Your task to perform on an android device: create a new album in the google photos Image 0: 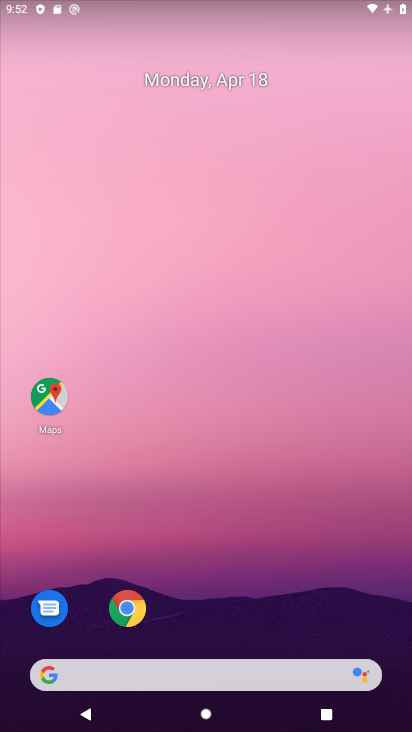
Step 0: drag from (230, 555) to (277, 147)
Your task to perform on an android device: create a new album in the google photos Image 1: 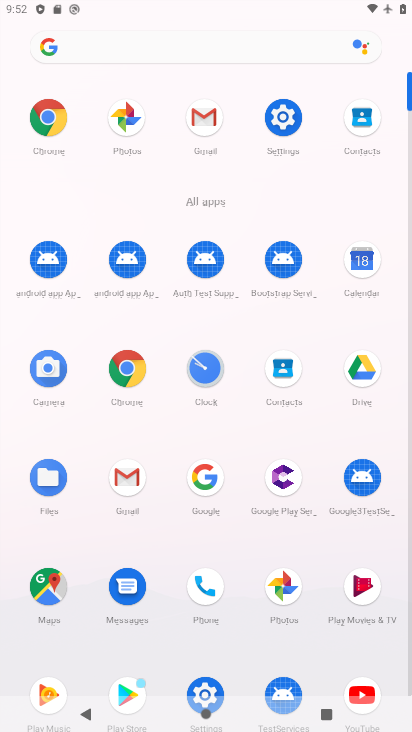
Step 1: click (142, 112)
Your task to perform on an android device: create a new album in the google photos Image 2: 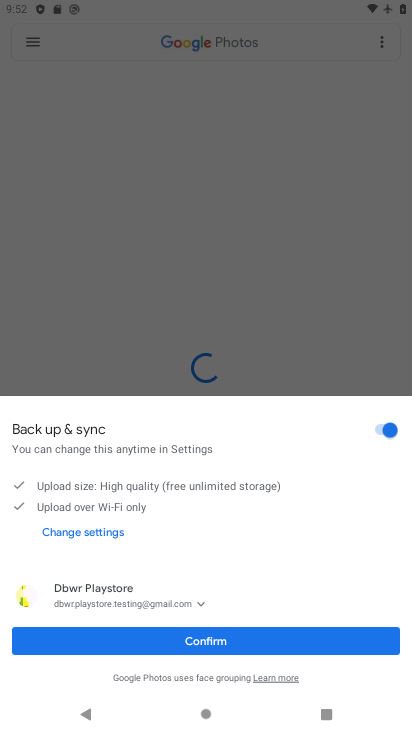
Step 2: click (267, 640)
Your task to perform on an android device: create a new album in the google photos Image 3: 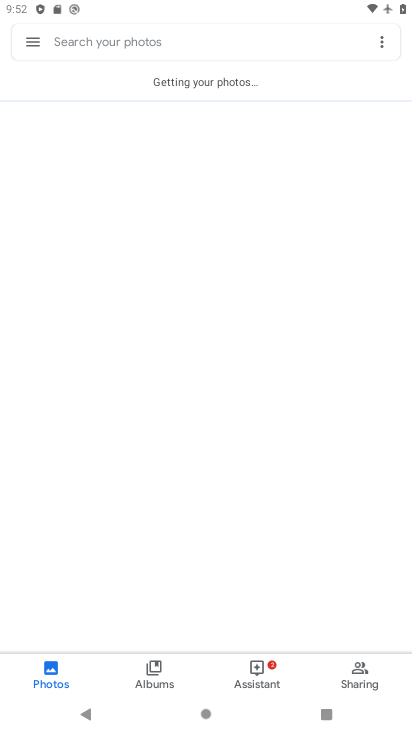
Step 3: click (154, 676)
Your task to perform on an android device: create a new album in the google photos Image 4: 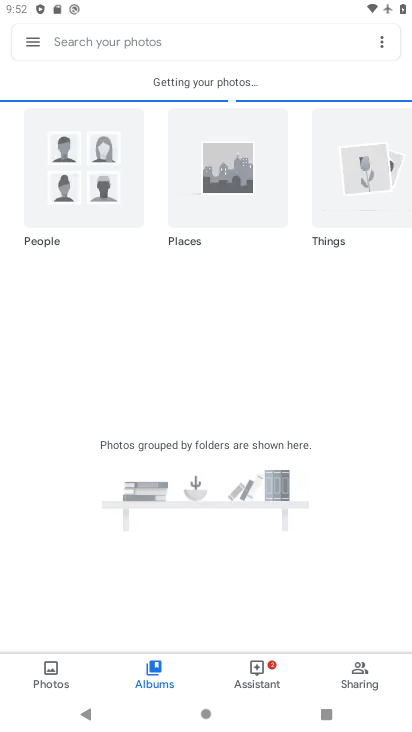
Step 4: click (223, 485)
Your task to perform on an android device: create a new album in the google photos Image 5: 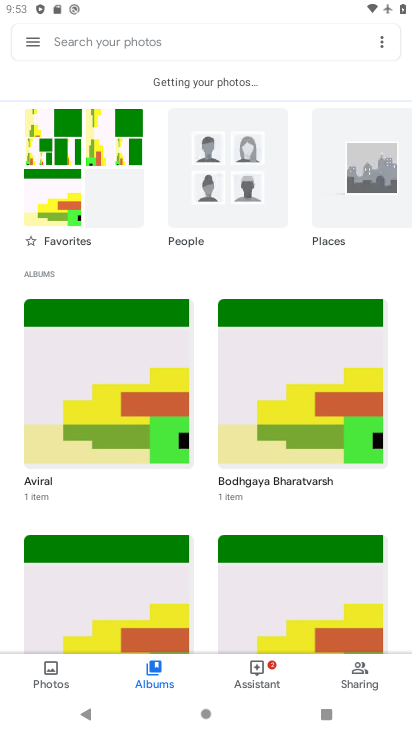
Step 5: click (381, 43)
Your task to perform on an android device: create a new album in the google photos Image 6: 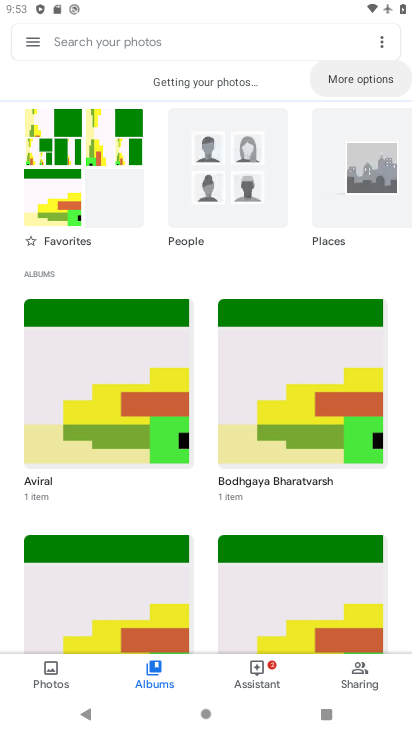
Step 6: click (382, 41)
Your task to perform on an android device: create a new album in the google photos Image 7: 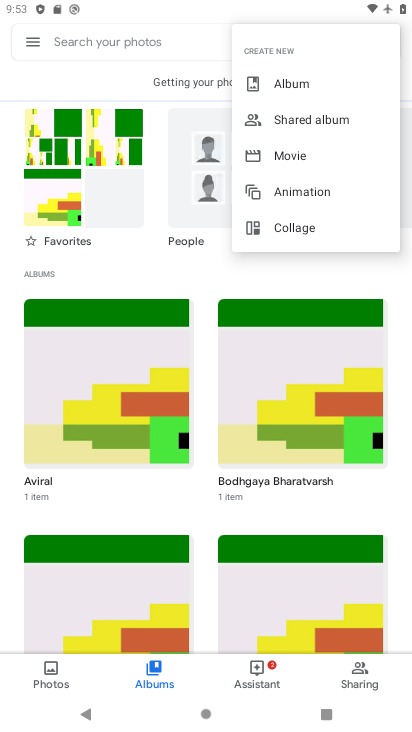
Step 7: click (307, 85)
Your task to perform on an android device: create a new album in the google photos Image 8: 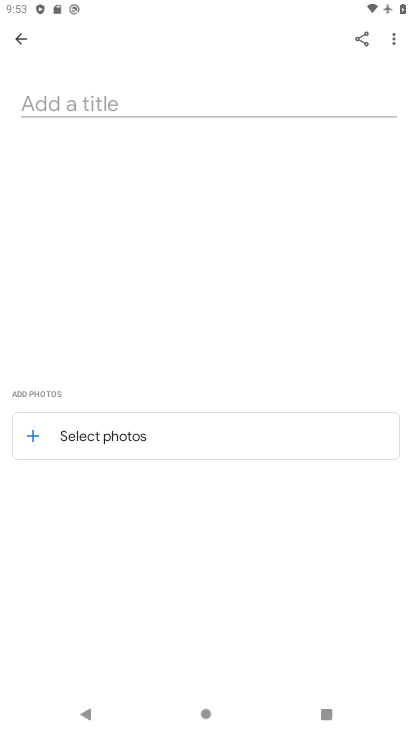
Step 8: click (102, 97)
Your task to perform on an android device: create a new album in the google photos Image 9: 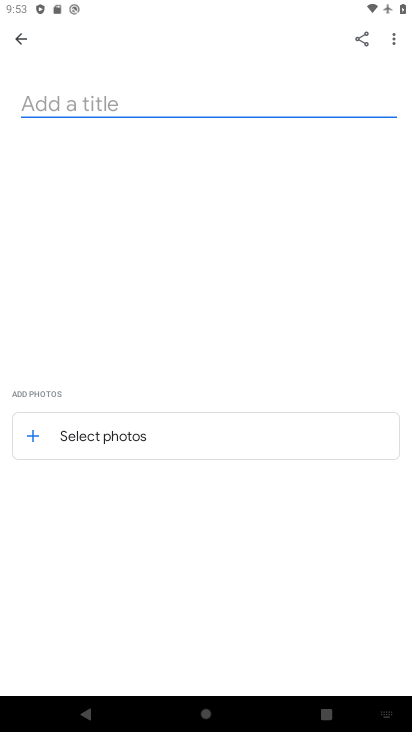
Step 9: type "rd"
Your task to perform on an android device: create a new album in the google photos Image 10: 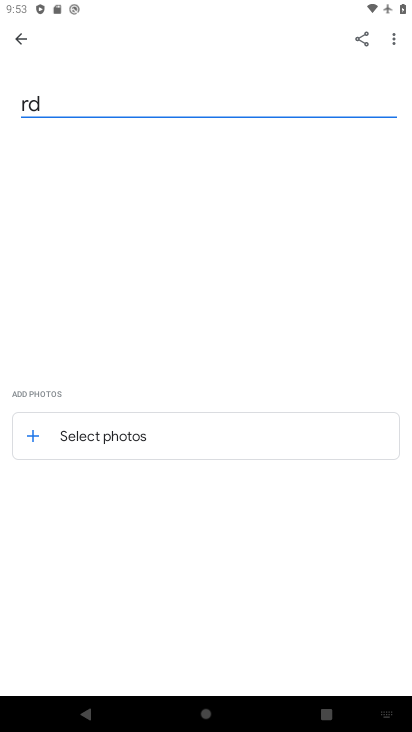
Step 10: click (90, 439)
Your task to perform on an android device: create a new album in the google photos Image 11: 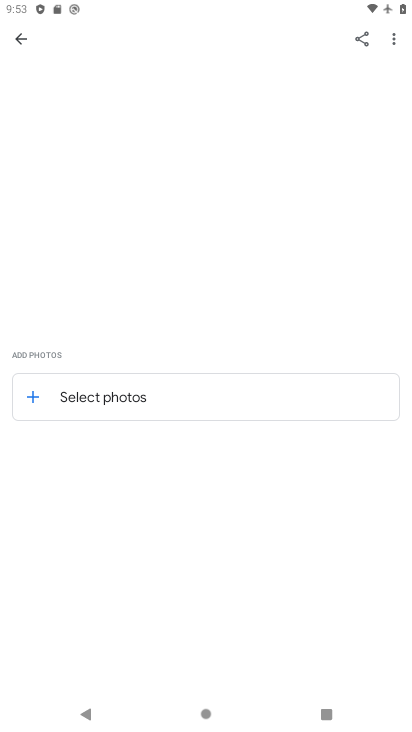
Step 11: click (103, 398)
Your task to perform on an android device: create a new album in the google photos Image 12: 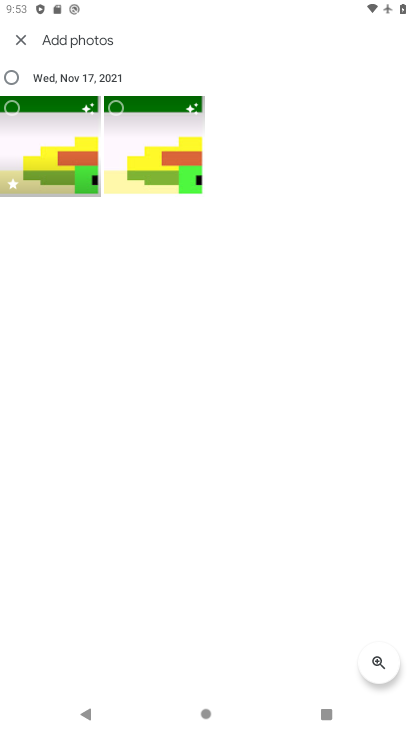
Step 12: click (57, 177)
Your task to perform on an android device: create a new album in the google photos Image 13: 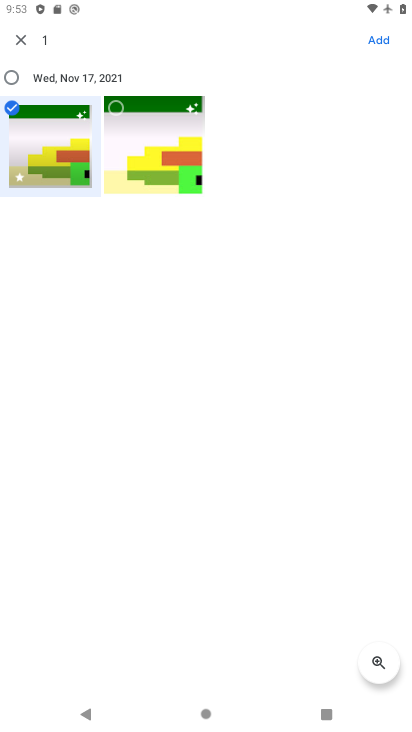
Step 13: click (381, 40)
Your task to perform on an android device: create a new album in the google photos Image 14: 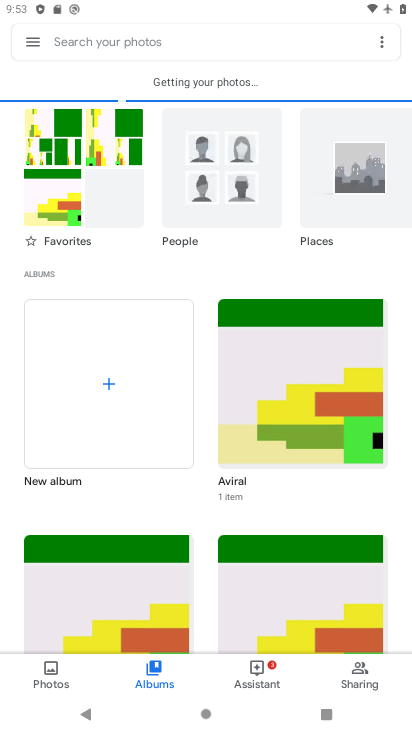
Step 14: task complete